Your task to perform on an android device: turn on priority inbox in the gmail app Image 0: 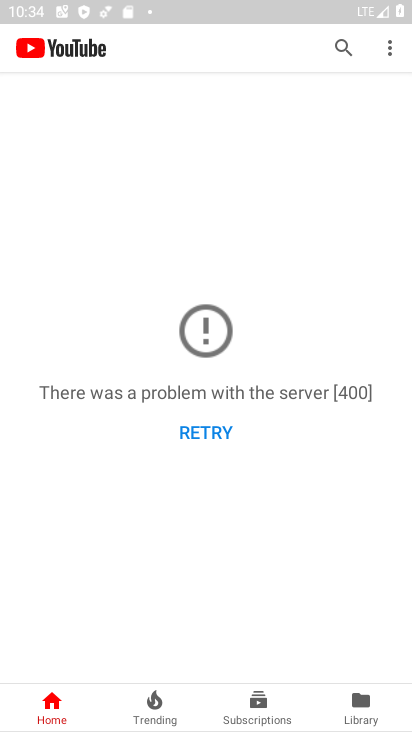
Step 0: press home button
Your task to perform on an android device: turn on priority inbox in the gmail app Image 1: 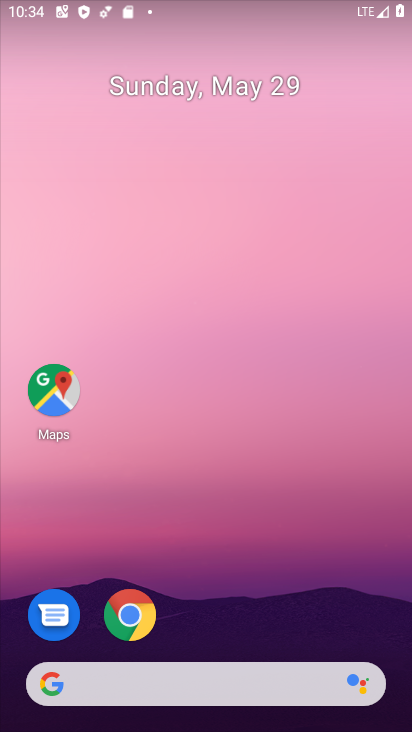
Step 1: drag from (359, 618) to (350, 233)
Your task to perform on an android device: turn on priority inbox in the gmail app Image 2: 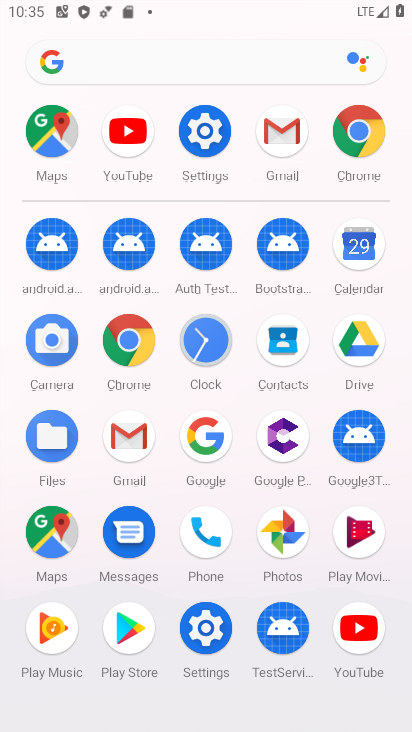
Step 2: click (146, 450)
Your task to perform on an android device: turn on priority inbox in the gmail app Image 3: 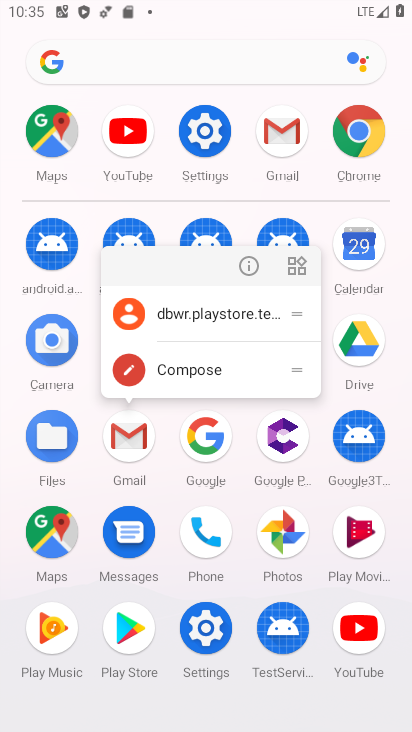
Step 3: click (146, 450)
Your task to perform on an android device: turn on priority inbox in the gmail app Image 4: 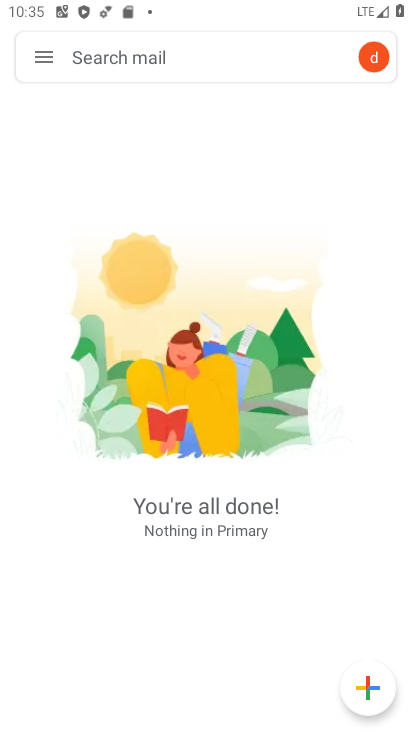
Step 4: click (52, 62)
Your task to perform on an android device: turn on priority inbox in the gmail app Image 5: 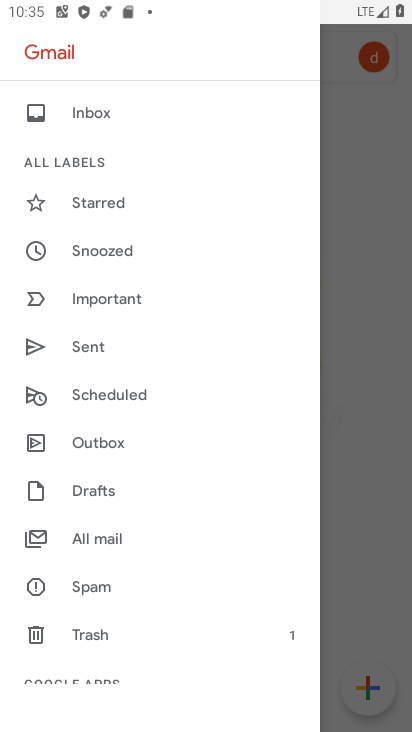
Step 5: drag from (248, 233) to (249, 404)
Your task to perform on an android device: turn on priority inbox in the gmail app Image 6: 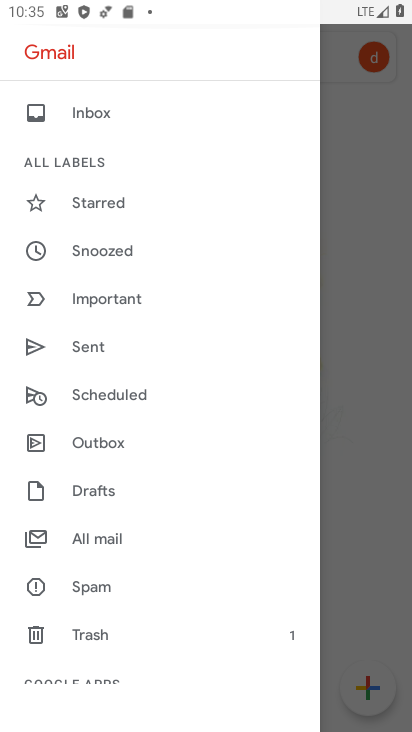
Step 6: drag from (248, 459) to (248, 368)
Your task to perform on an android device: turn on priority inbox in the gmail app Image 7: 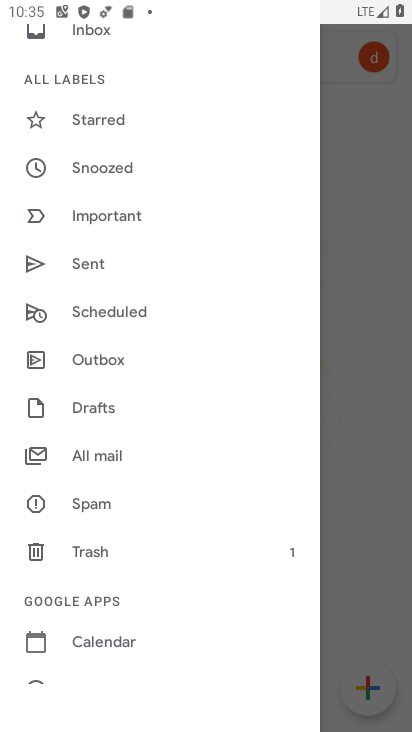
Step 7: click (249, 430)
Your task to perform on an android device: turn on priority inbox in the gmail app Image 8: 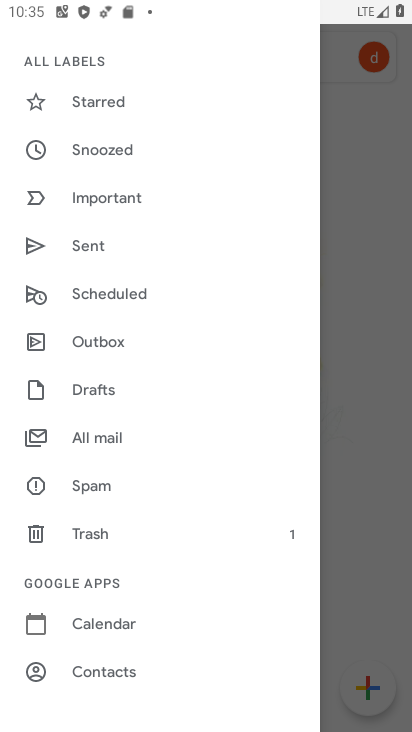
Step 8: drag from (247, 466) to (254, 389)
Your task to perform on an android device: turn on priority inbox in the gmail app Image 9: 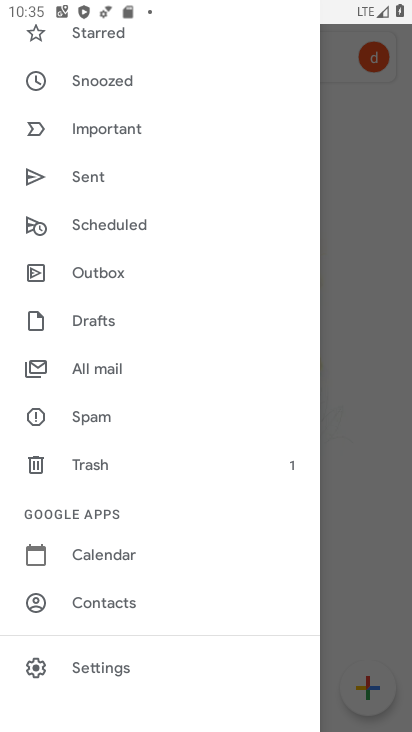
Step 9: drag from (237, 514) to (242, 408)
Your task to perform on an android device: turn on priority inbox in the gmail app Image 10: 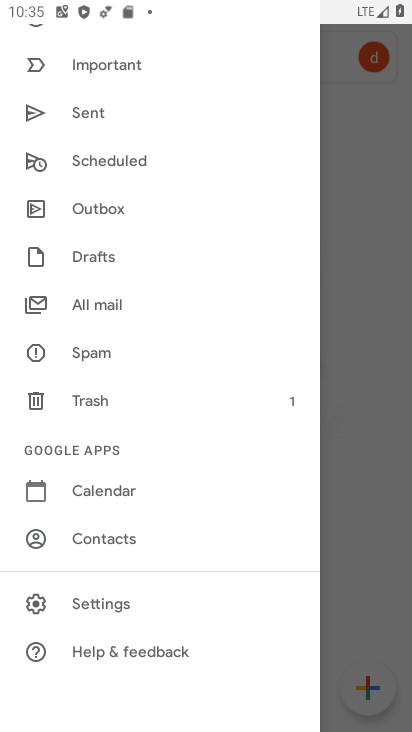
Step 10: click (171, 605)
Your task to perform on an android device: turn on priority inbox in the gmail app Image 11: 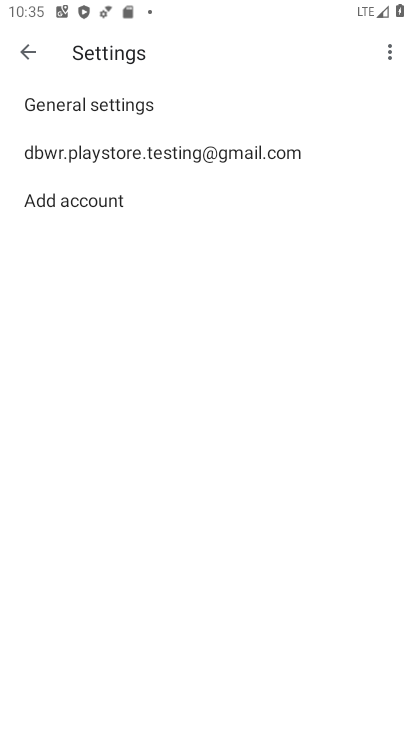
Step 11: click (240, 157)
Your task to perform on an android device: turn on priority inbox in the gmail app Image 12: 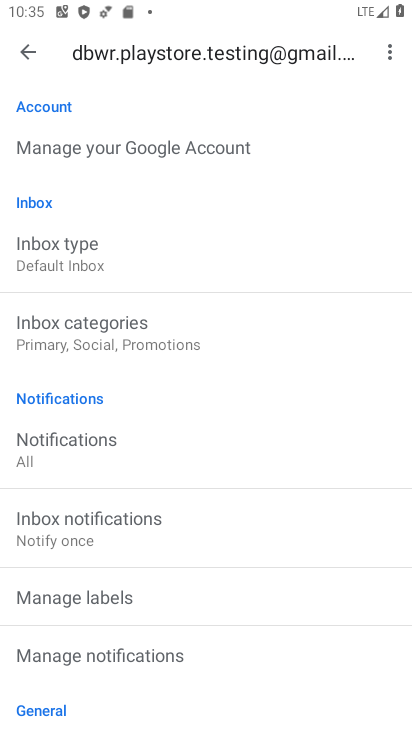
Step 12: drag from (266, 506) to (294, 348)
Your task to perform on an android device: turn on priority inbox in the gmail app Image 13: 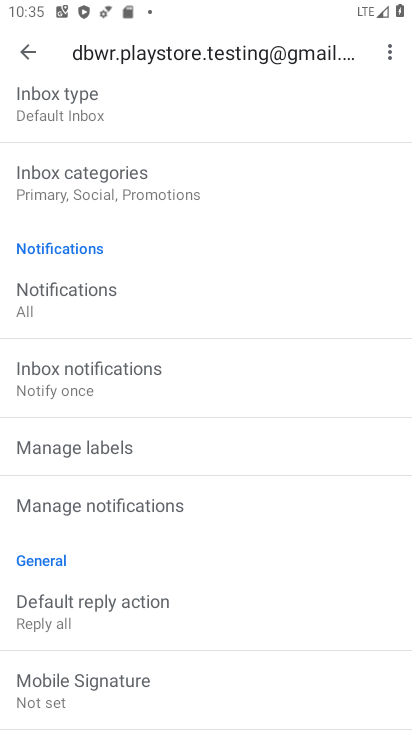
Step 13: drag from (292, 571) to (306, 362)
Your task to perform on an android device: turn on priority inbox in the gmail app Image 14: 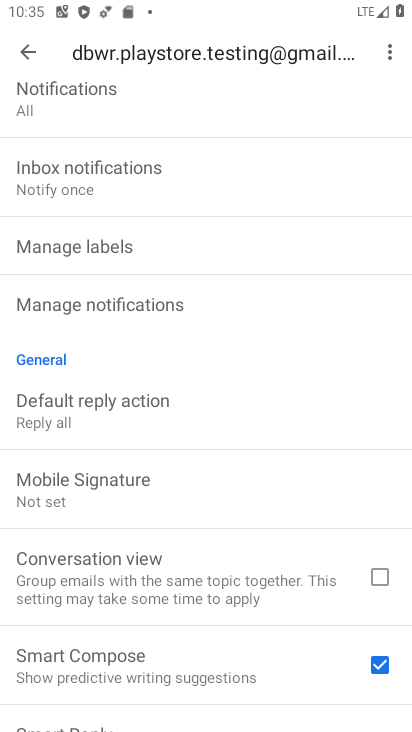
Step 14: drag from (280, 564) to (287, 357)
Your task to perform on an android device: turn on priority inbox in the gmail app Image 15: 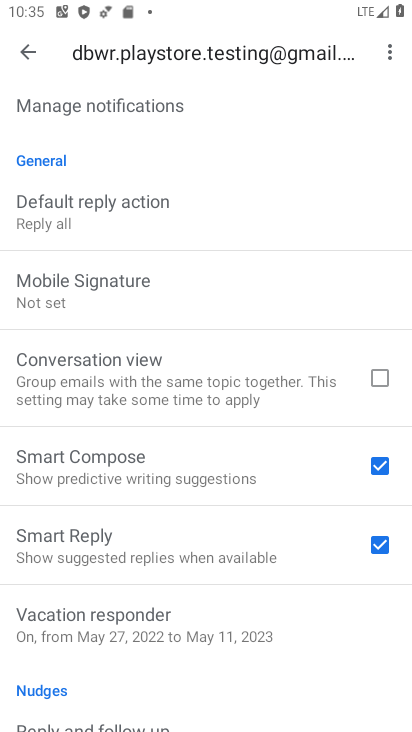
Step 15: drag from (267, 292) to (268, 444)
Your task to perform on an android device: turn on priority inbox in the gmail app Image 16: 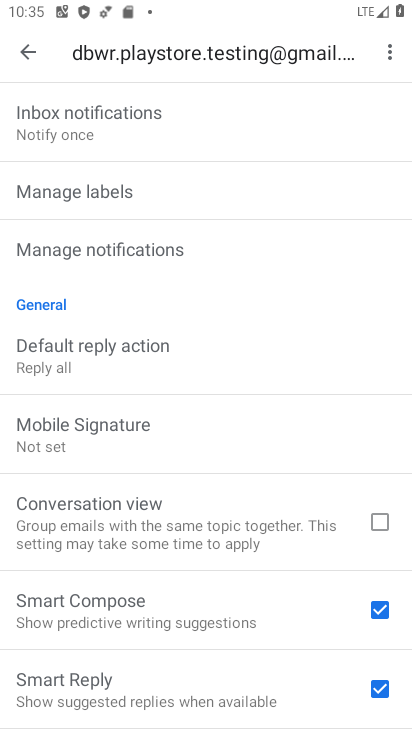
Step 16: drag from (268, 178) to (279, 369)
Your task to perform on an android device: turn on priority inbox in the gmail app Image 17: 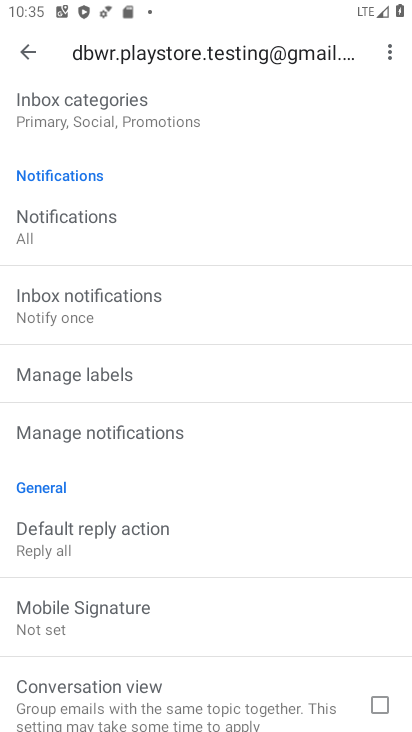
Step 17: drag from (276, 163) to (278, 349)
Your task to perform on an android device: turn on priority inbox in the gmail app Image 18: 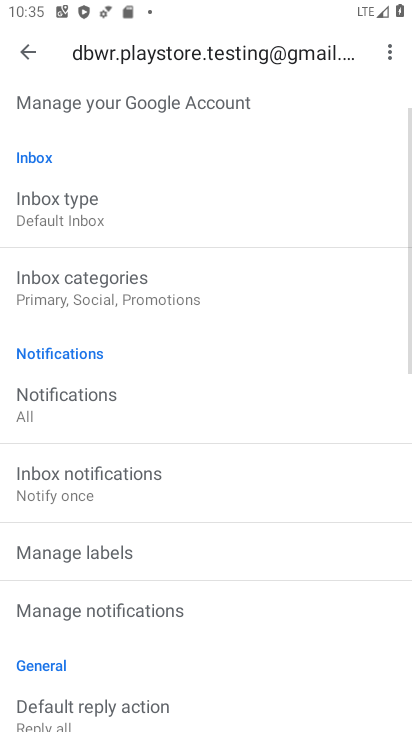
Step 18: click (124, 201)
Your task to perform on an android device: turn on priority inbox in the gmail app Image 19: 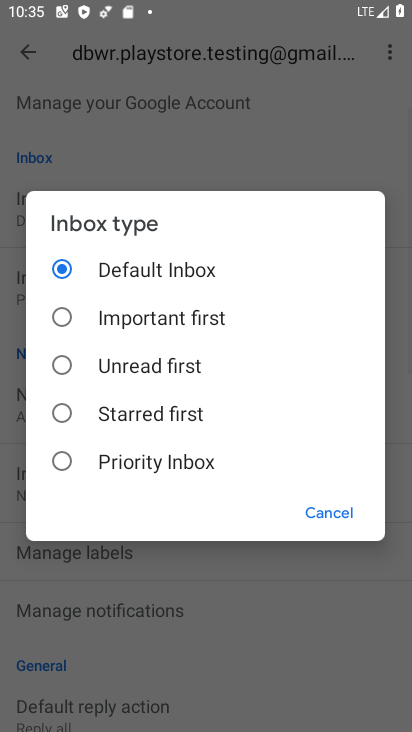
Step 19: click (149, 471)
Your task to perform on an android device: turn on priority inbox in the gmail app Image 20: 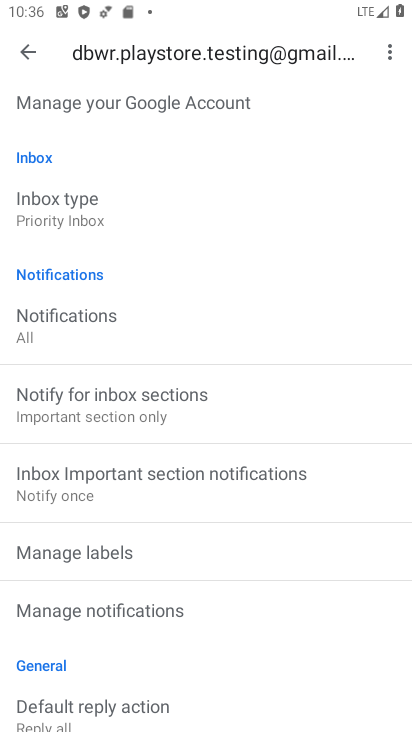
Step 20: task complete